Your task to perform on an android device: see tabs open on other devices in the chrome app Image 0: 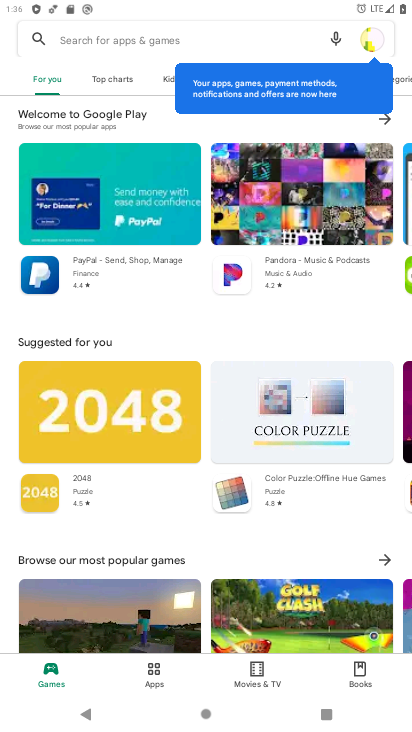
Step 0: press home button
Your task to perform on an android device: see tabs open on other devices in the chrome app Image 1: 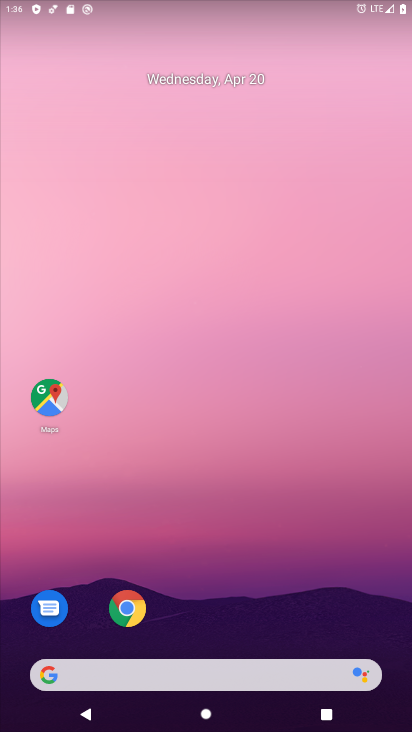
Step 1: click (128, 608)
Your task to perform on an android device: see tabs open on other devices in the chrome app Image 2: 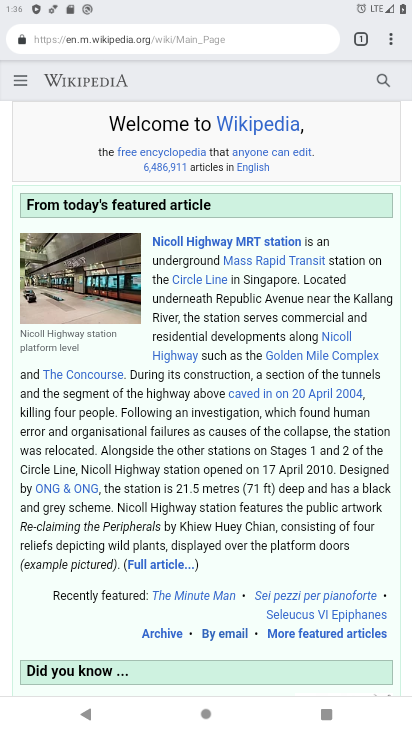
Step 2: click (389, 38)
Your task to perform on an android device: see tabs open on other devices in the chrome app Image 3: 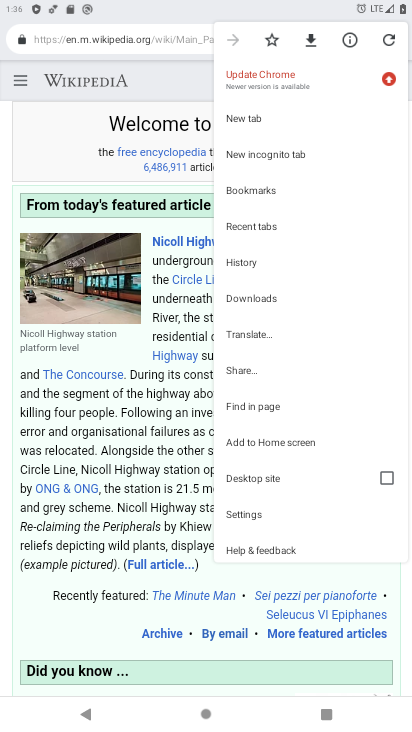
Step 3: click (251, 219)
Your task to perform on an android device: see tabs open on other devices in the chrome app Image 4: 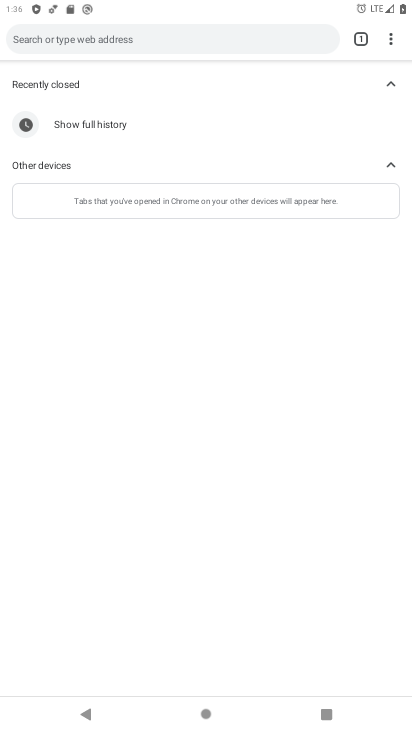
Step 4: task complete